Your task to perform on an android device: Go to eBay Image 0: 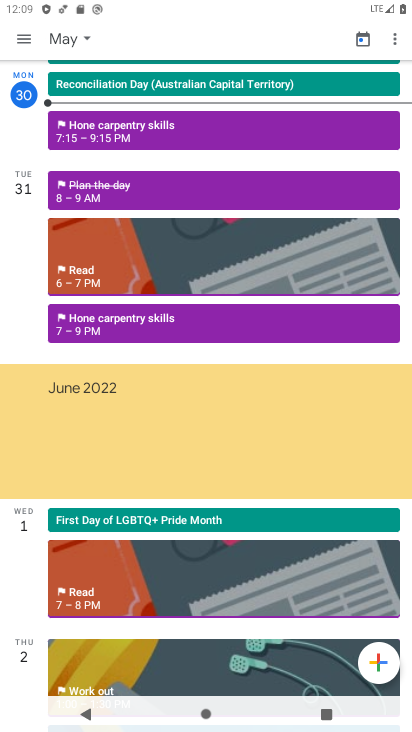
Step 0: press home button
Your task to perform on an android device: Go to eBay Image 1: 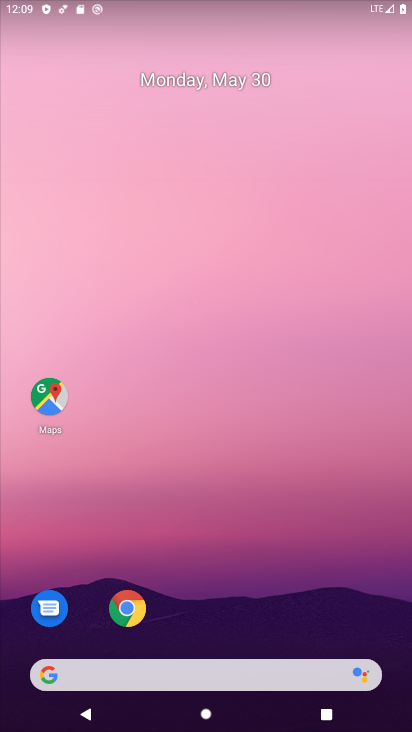
Step 1: click (134, 610)
Your task to perform on an android device: Go to eBay Image 2: 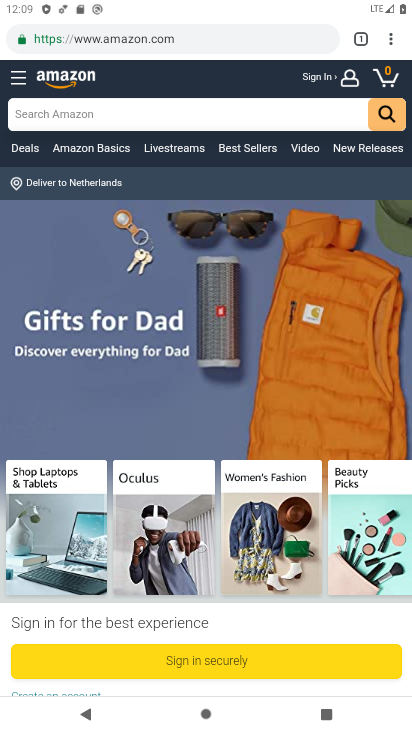
Step 2: click (212, 30)
Your task to perform on an android device: Go to eBay Image 3: 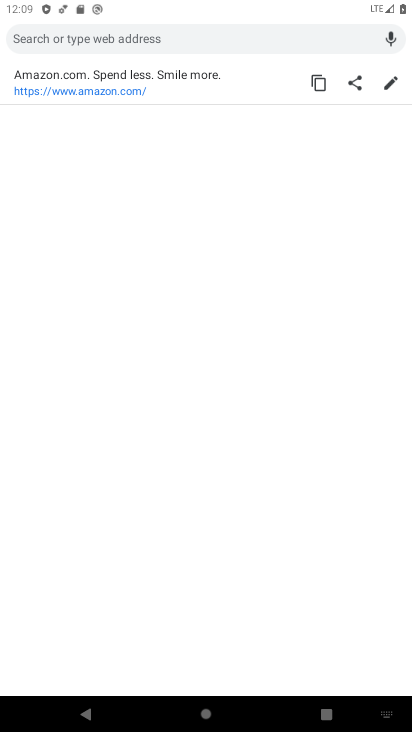
Step 3: type "eBay"
Your task to perform on an android device: Go to eBay Image 4: 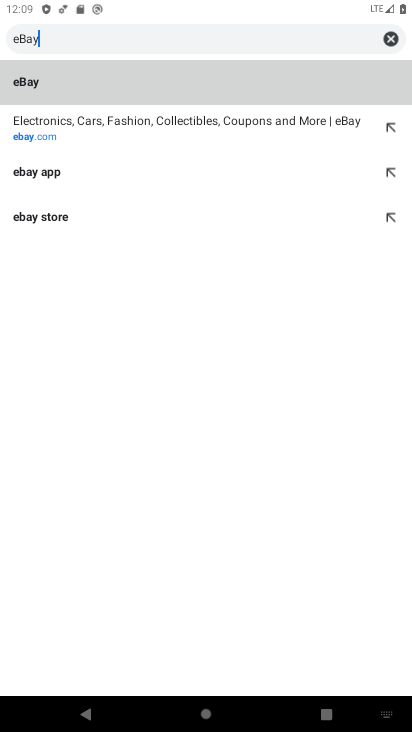
Step 4: click (147, 119)
Your task to perform on an android device: Go to eBay Image 5: 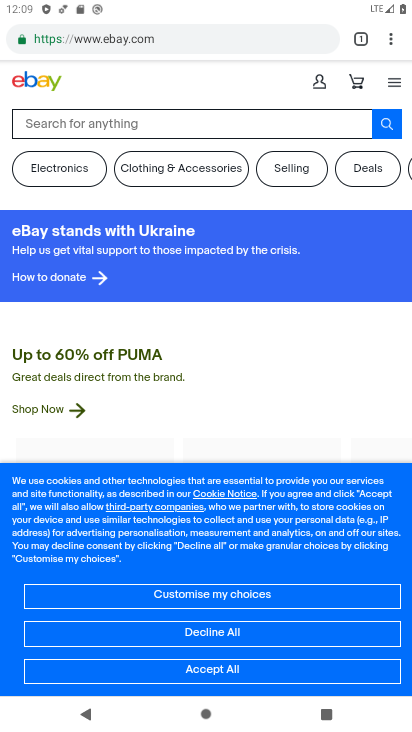
Step 5: task complete